Your task to perform on an android device: What is the news today? Image 0: 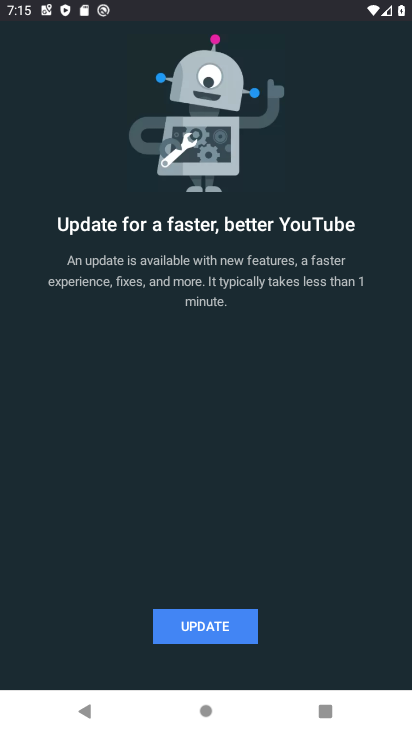
Step 0: press home button
Your task to perform on an android device: What is the news today? Image 1: 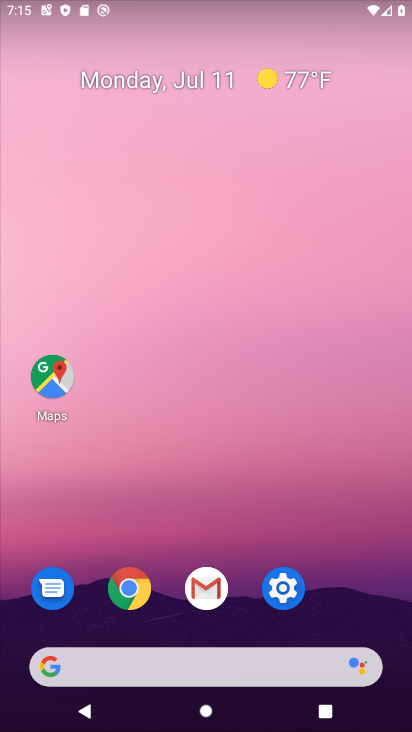
Step 1: click (244, 657)
Your task to perform on an android device: What is the news today? Image 2: 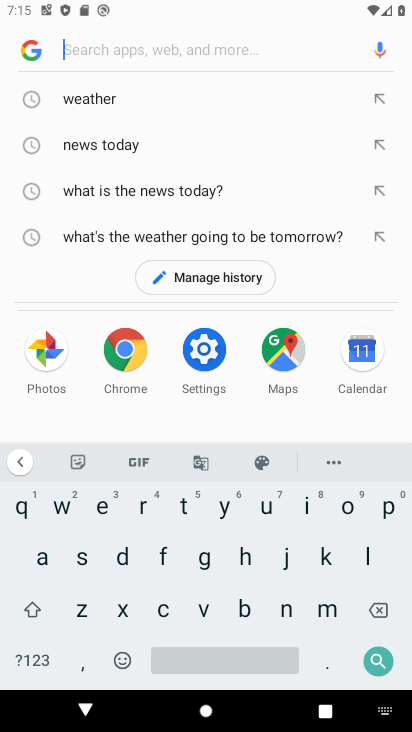
Step 2: click (105, 139)
Your task to perform on an android device: What is the news today? Image 3: 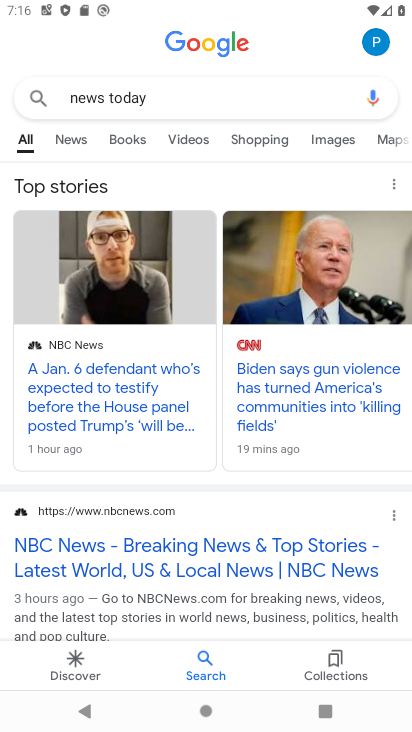
Step 3: task complete